Your task to perform on an android device: Turn on the flashlight Image 0: 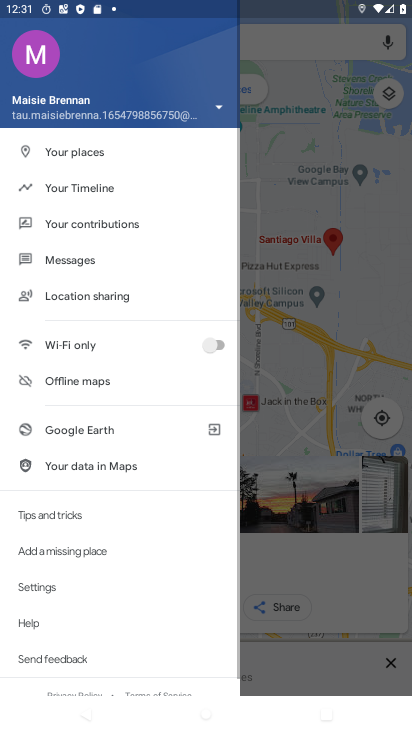
Step 0: press back button
Your task to perform on an android device: Turn on the flashlight Image 1: 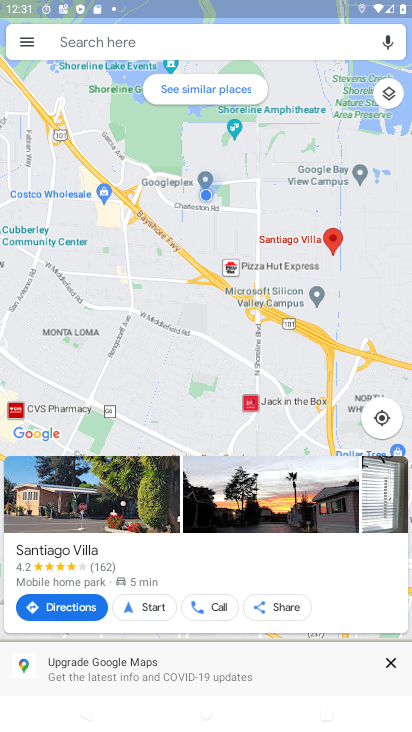
Step 1: click (264, 182)
Your task to perform on an android device: Turn on the flashlight Image 2: 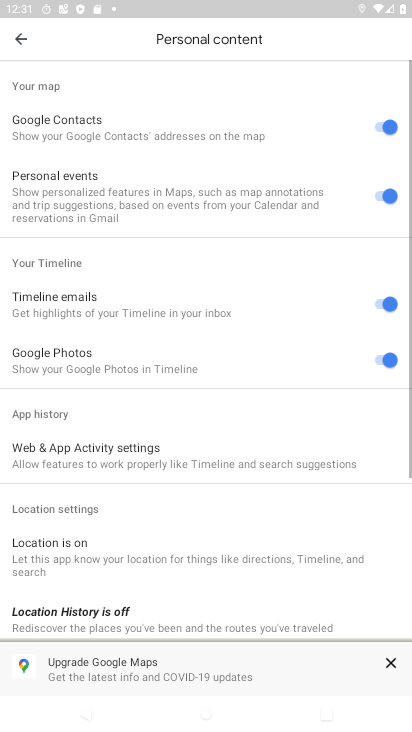
Step 2: task complete